Your task to perform on an android device: What is the recent news? Image 0: 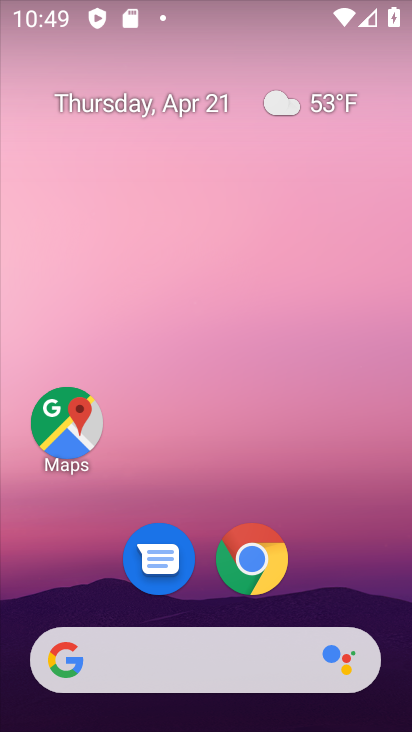
Step 0: drag from (282, 687) to (264, 221)
Your task to perform on an android device: What is the recent news? Image 1: 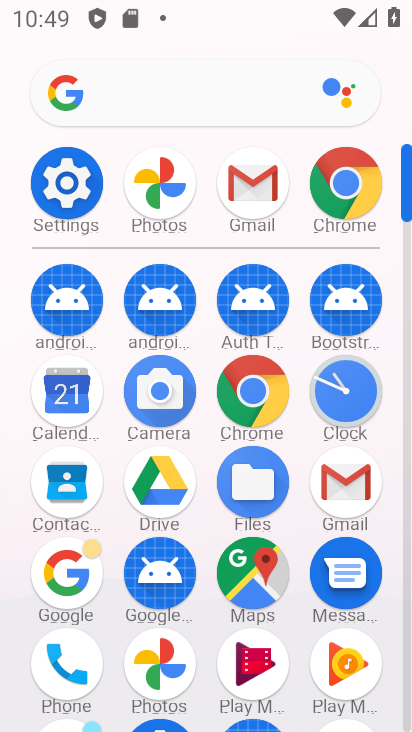
Step 1: click (178, 107)
Your task to perform on an android device: What is the recent news? Image 2: 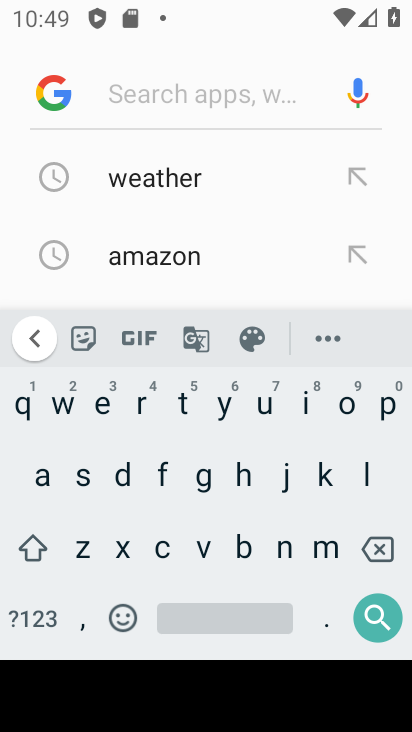
Step 2: click (135, 411)
Your task to perform on an android device: What is the recent news? Image 3: 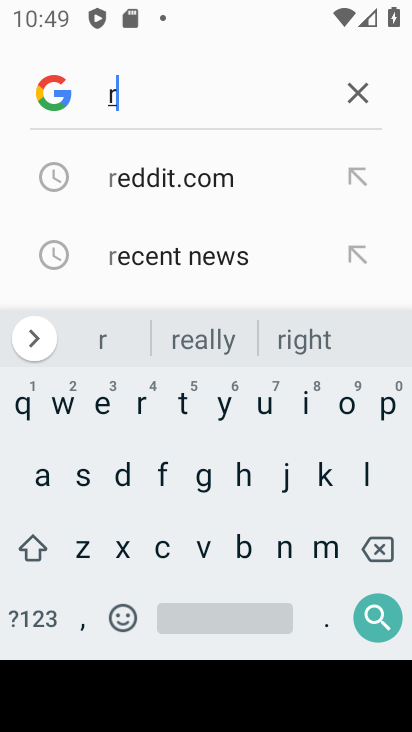
Step 3: click (173, 268)
Your task to perform on an android device: What is the recent news? Image 4: 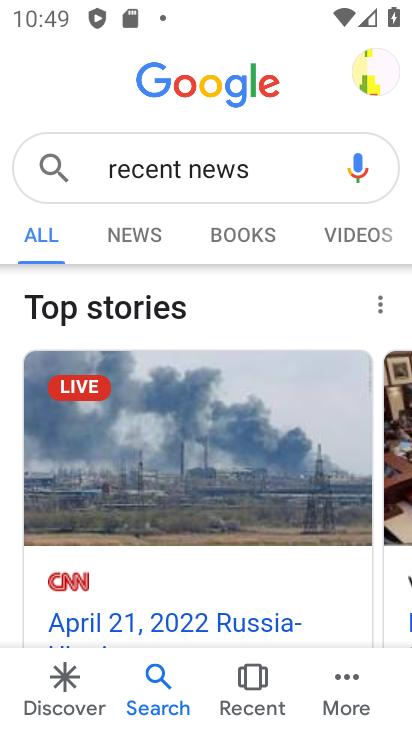
Step 4: task complete